Your task to perform on an android device: turn on airplane mode Image 0: 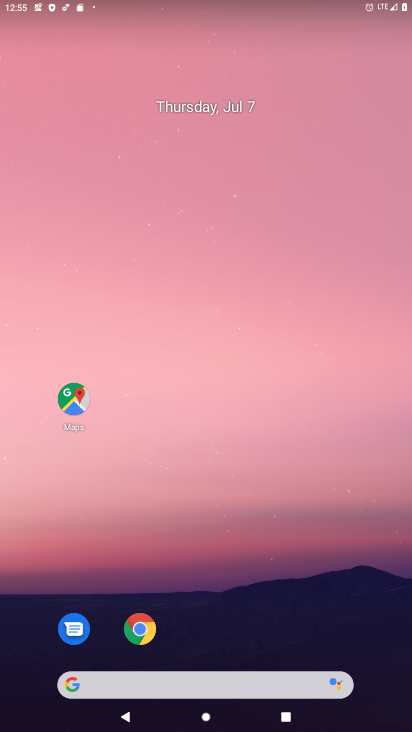
Step 0: drag from (242, 599) to (150, 70)
Your task to perform on an android device: turn on airplane mode Image 1: 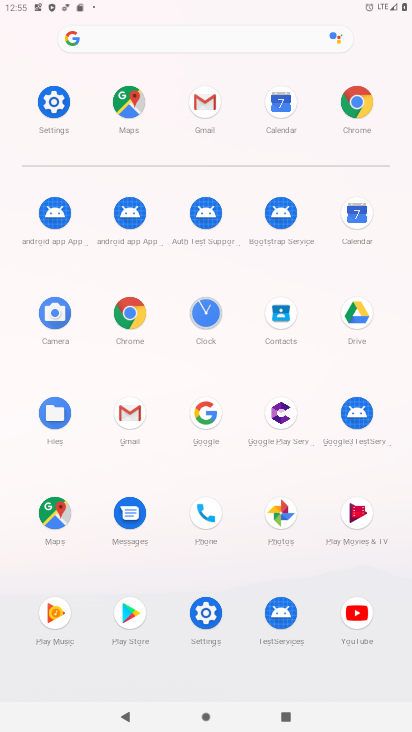
Step 1: click (57, 101)
Your task to perform on an android device: turn on airplane mode Image 2: 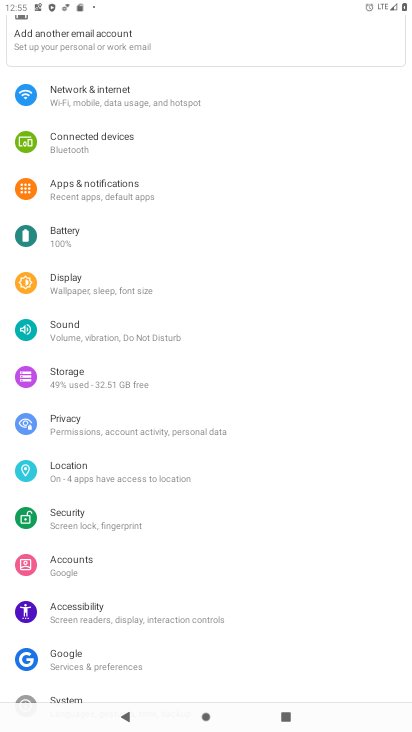
Step 2: click (75, 100)
Your task to perform on an android device: turn on airplane mode Image 3: 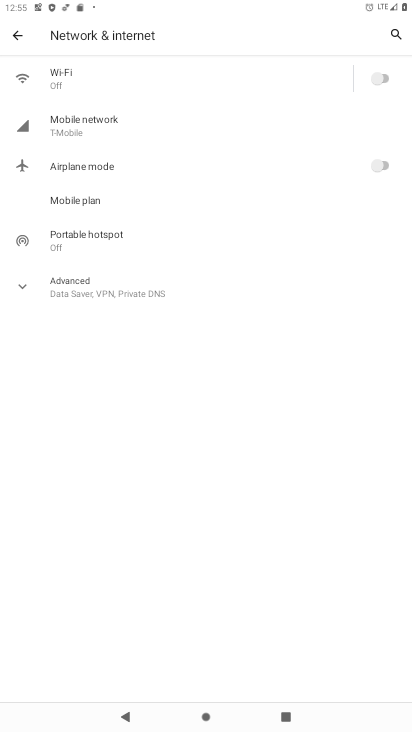
Step 3: click (380, 169)
Your task to perform on an android device: turn on airplane mode Image 4: 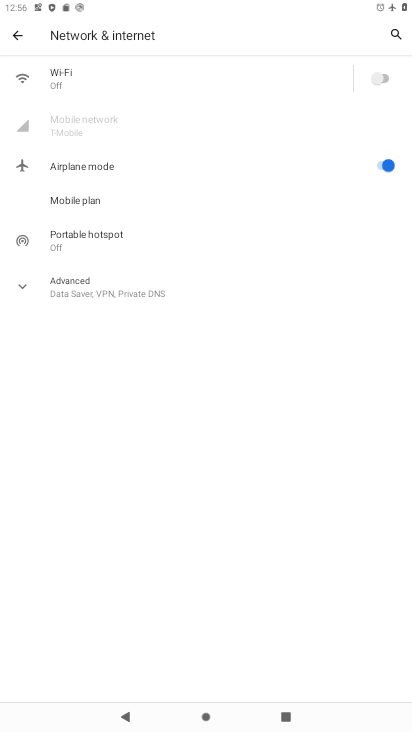
Step 4: task complete